Your task to perform on an android device: Do I have any events today? Image 0: 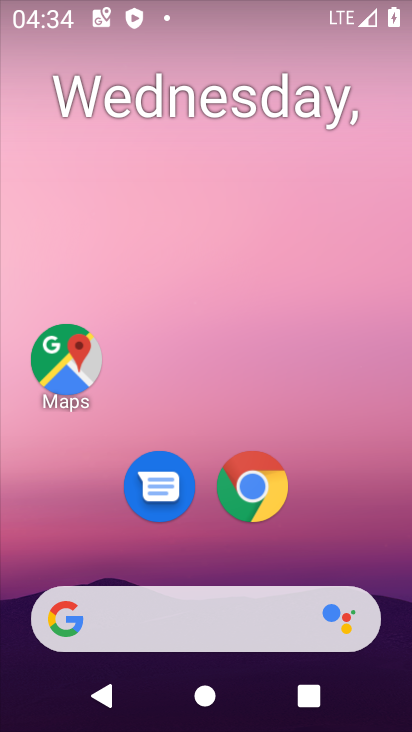
Step 0: drag from (191, 592) to (196, 130)
Your task to perform on an android device: Do I have any events today? Image 1: 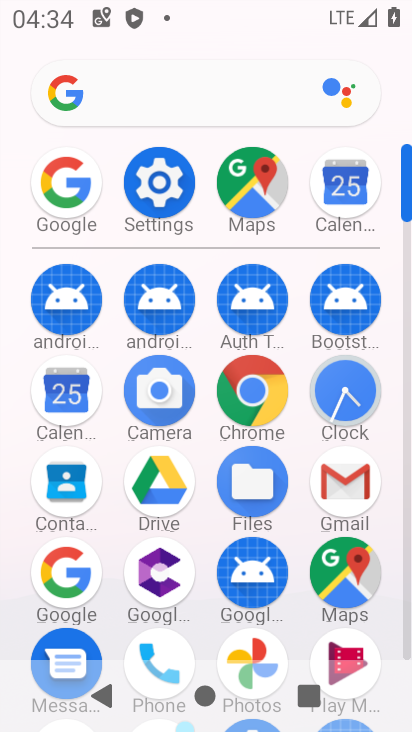
Step 1: click (345, 192)
Your task to perform on an android device: Do I have any events today? Image 2: 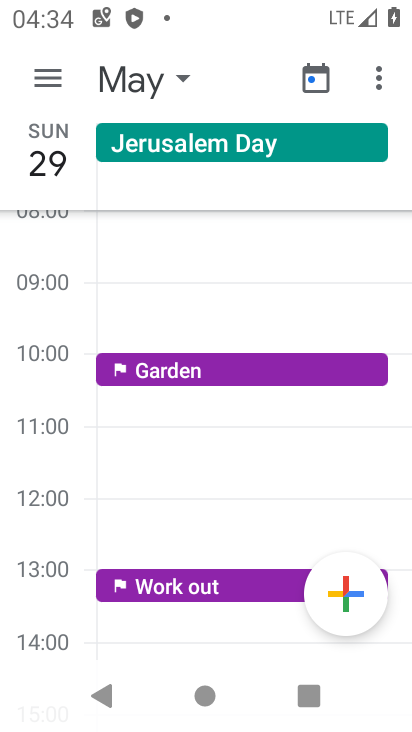
Step 2: click (160, 81)
Your task to perform on an android device: Do I have any events today? Image 3: 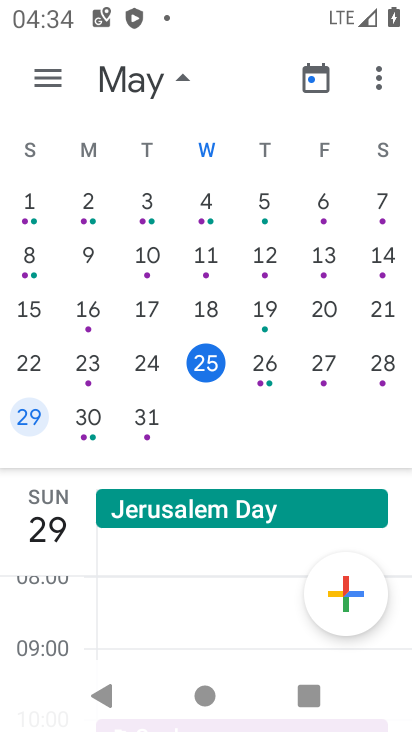
Step 3: click (152, 370)
Your task to perform on an android device: Do I have any events today? Image 4: 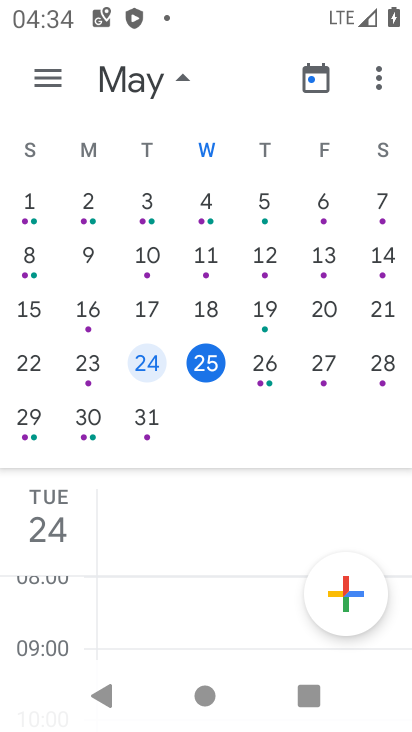
Step 4: task complete